Your task to perform on an android device: uninstall "Microsoft Outlook" Image 0: 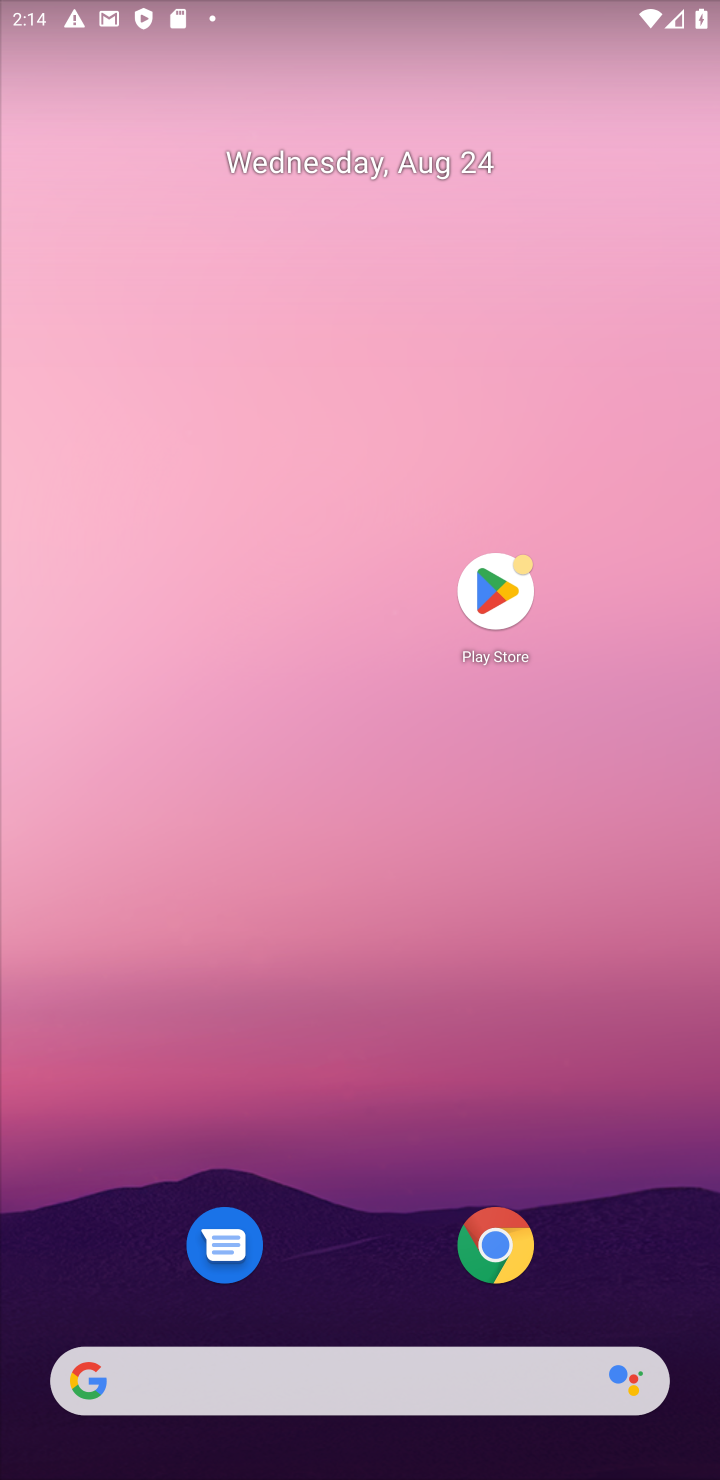
Step 0: click (498, 594)
Your task to perform on an android device: uninstall "Microsoft Outlook" Image 1: 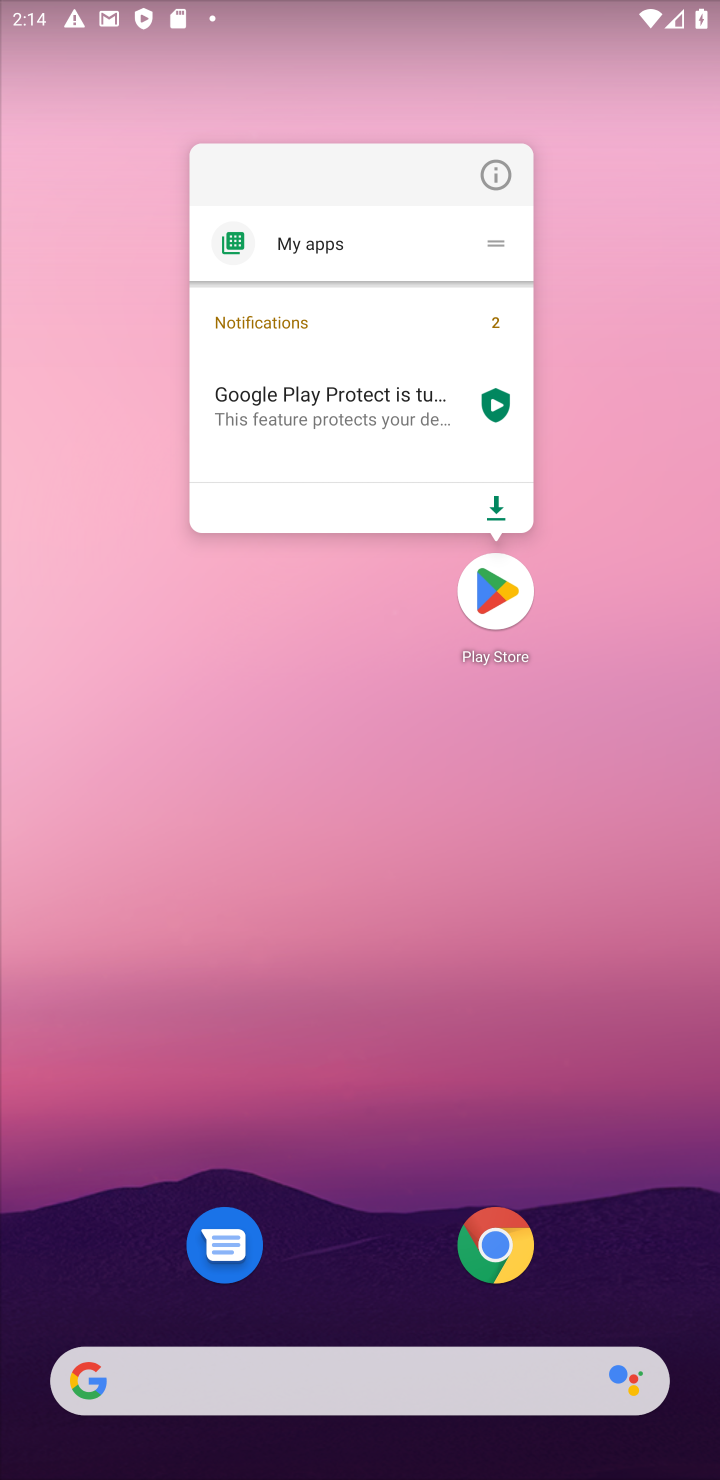
Step 1: click (498, 594)
Your task to perform on an android device: uninstall "Microsoft Outlook" Image 2: 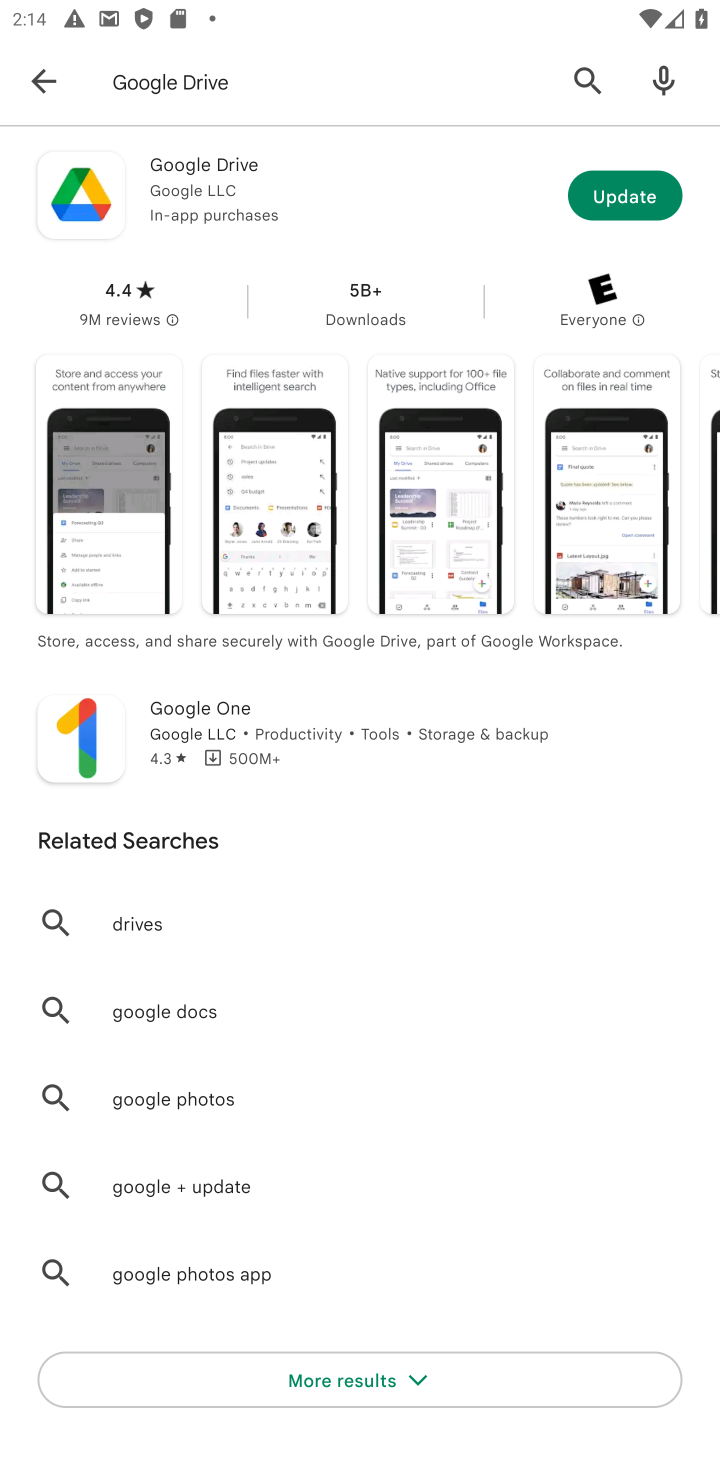
Step 2: click (577, 68)
Your task to perform on an android device: uninstall "Microsoft Outlook" Image 3: 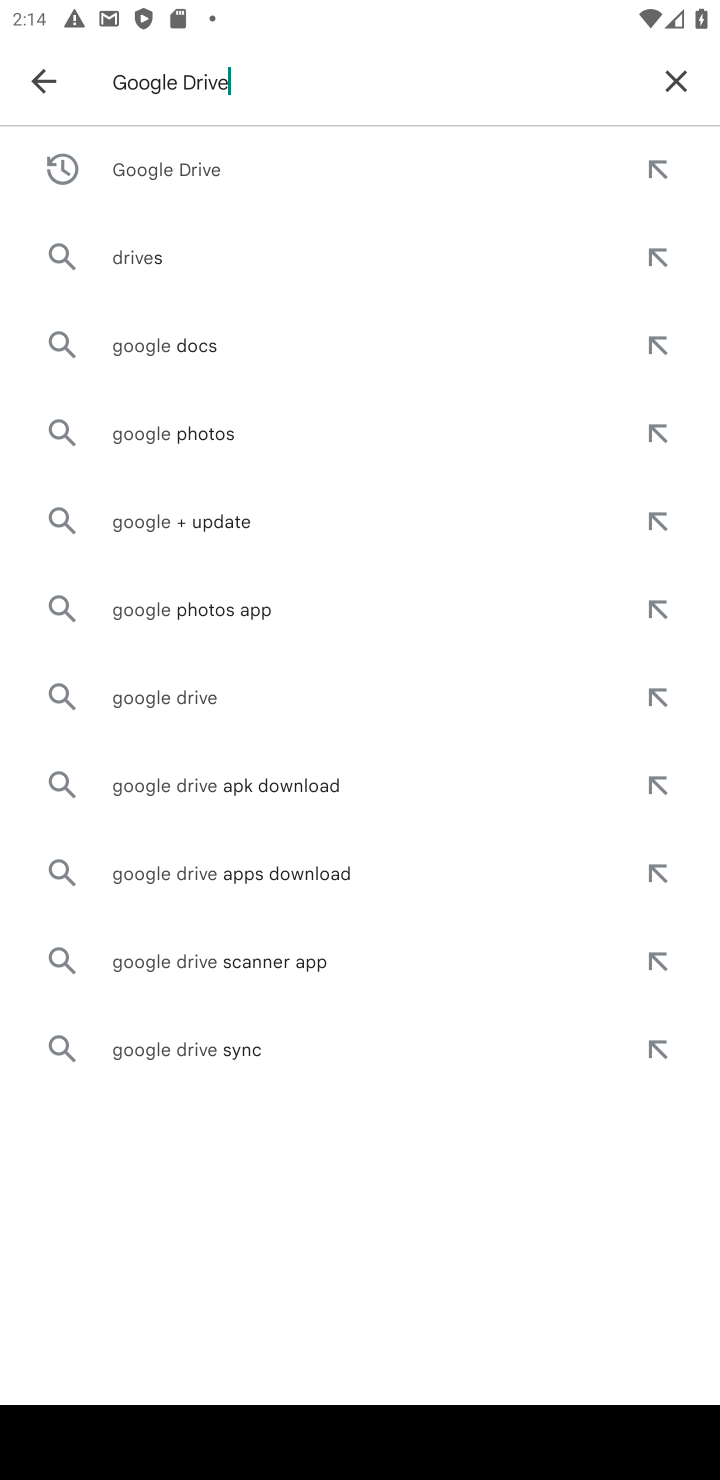
Step 3: click (670, 57)
Your task to perform on an android device: uninstall "Microsoft Outlook" Image 4: 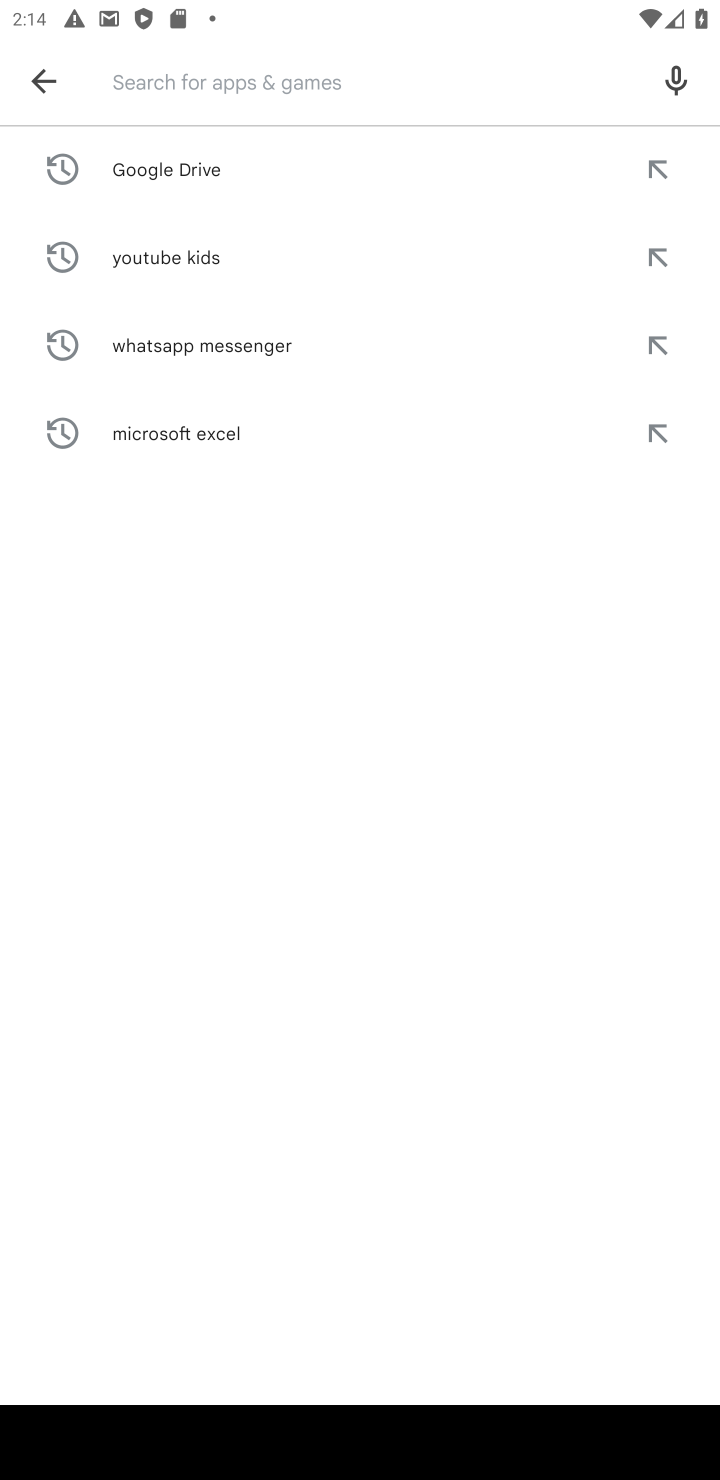
Step 4: type "Microsoft Outlook"
Your task to perform on an android device: uninstall "Microsoft Outlook" Image 5: 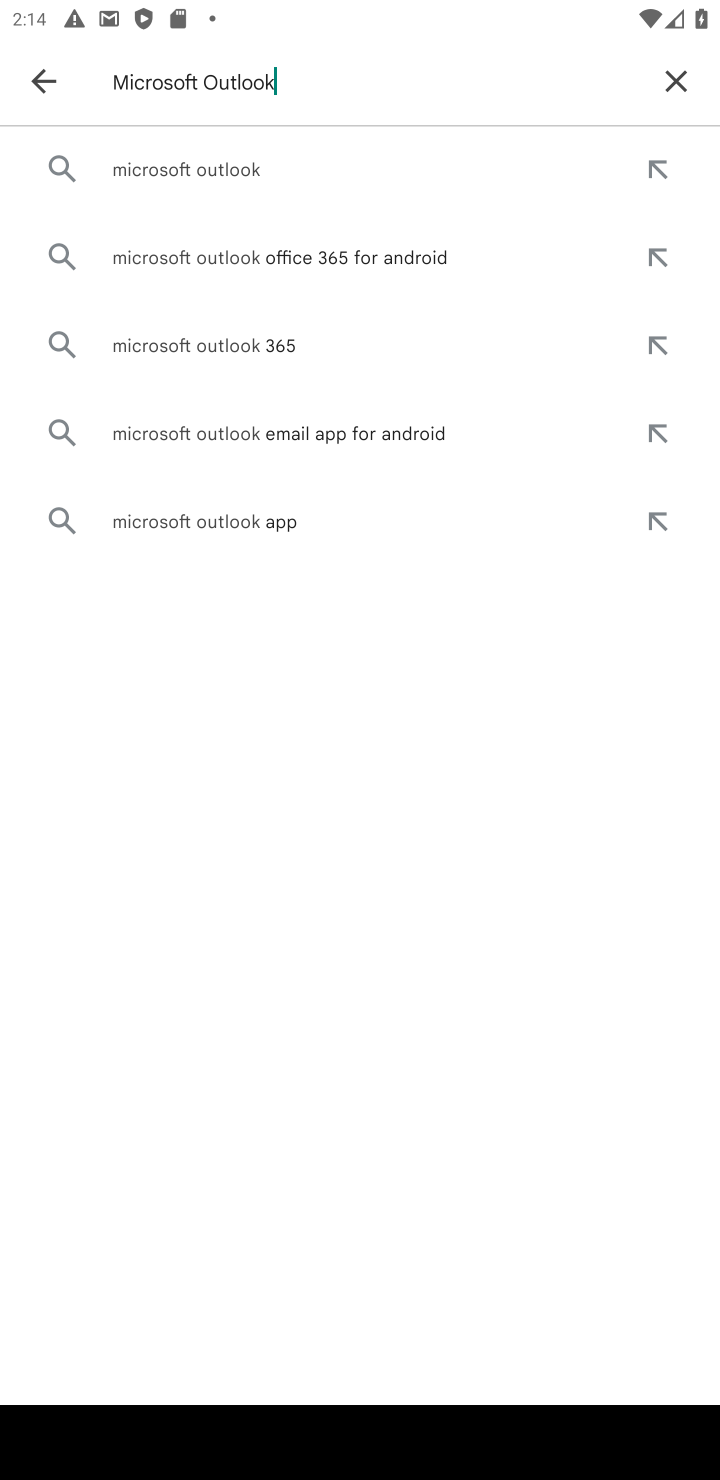
Step 5: click (205, 172)
Your task to perform on an android device: uninstall "Microsoft Outlook" Image 6: 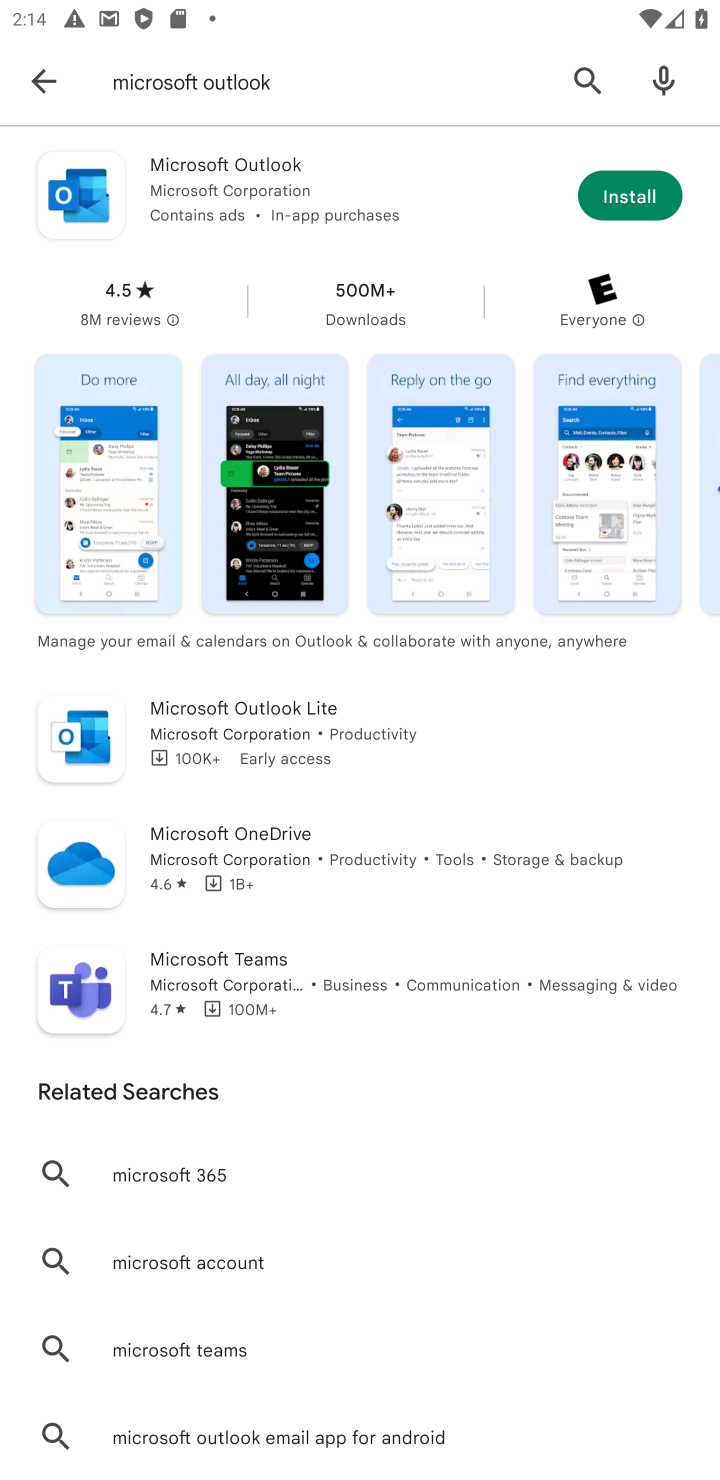
Step 6: task complete